Your task to perform on an android device: star an email in the gmail app Image 0: 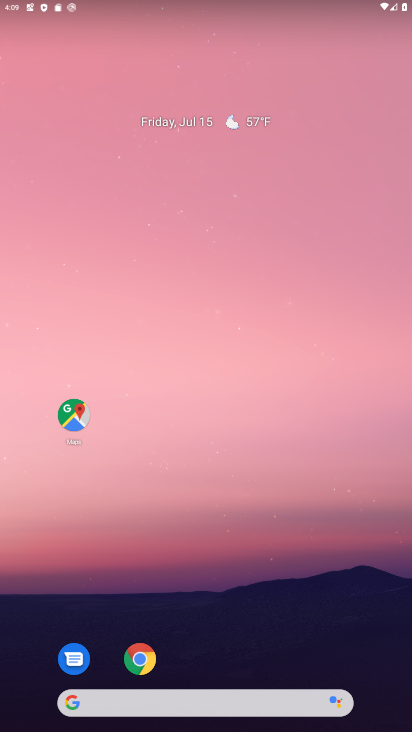
Step 0: drag from (280, 674) to (207, 172)
Your task to perform on an android device: star an email in the gmail app Image 1: 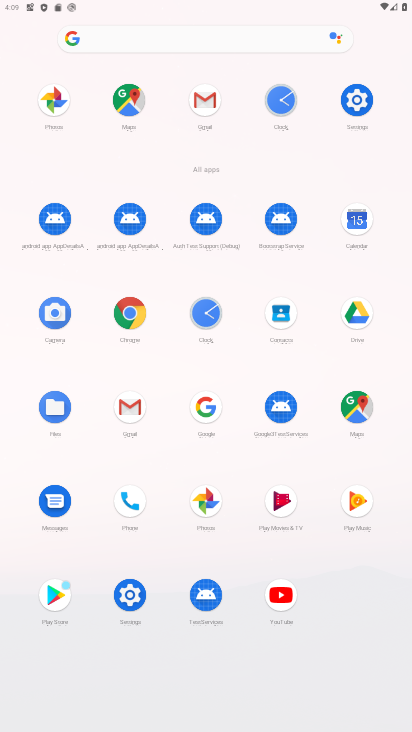
Step 1: click (191, 104)
Your task to perform on an android device: star an email in the gmail app Image 2: 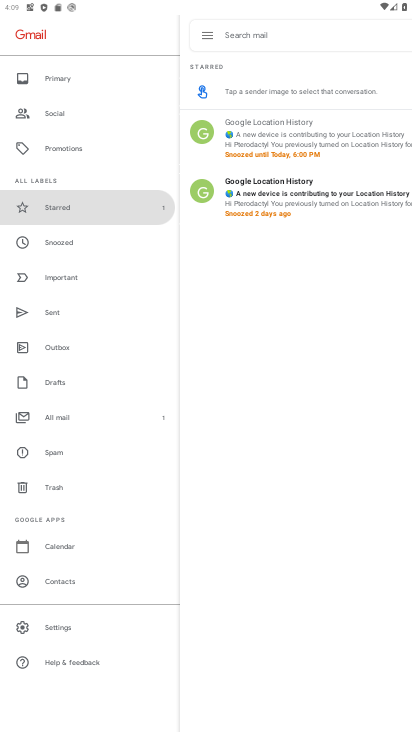
Step 2: drag from (100, 87) to (93, 485)
Your task to perform on an android device: star an email in the gmail app Image 3: 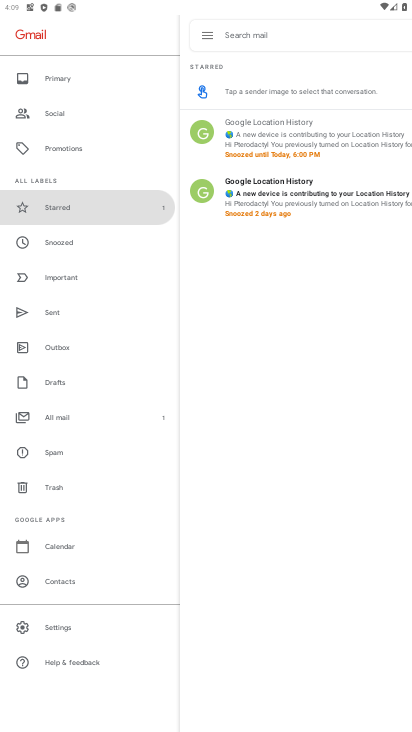
Step 3: click (87, 414)
Your task to perform on an android device: star an email in the gmail app Image 4: 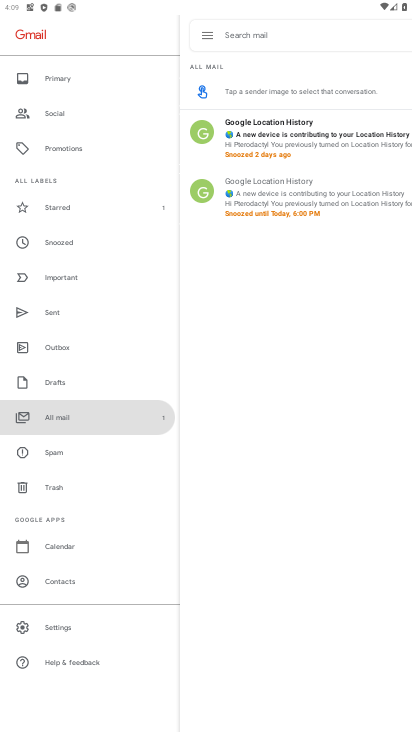
Step 4: click (210, 30)
Your task to perform on an android device: star an email in the gmail app Image 5: 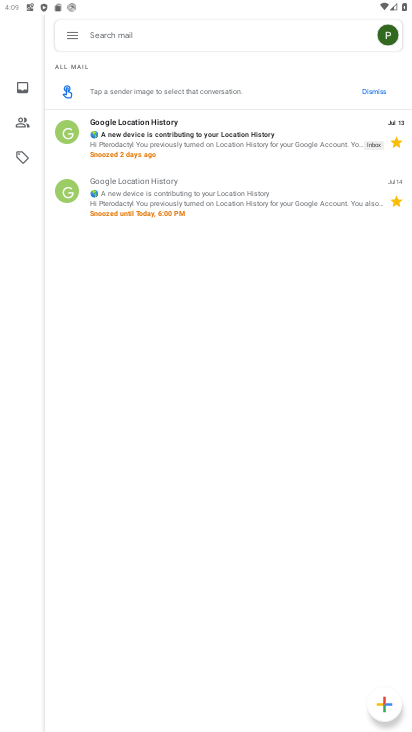
Step 5: task complete